Your task to perform on an android device: change notification settings in the gmail app Image 0: 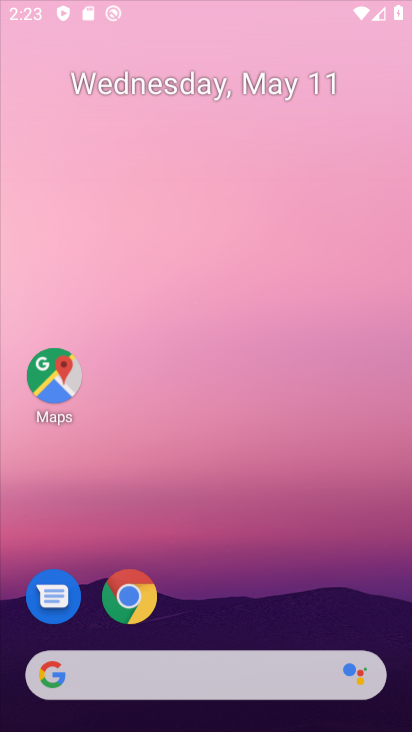
Step 0: press back button
Your task to perform on an android device: change notification settings in the gmail app Image 1: 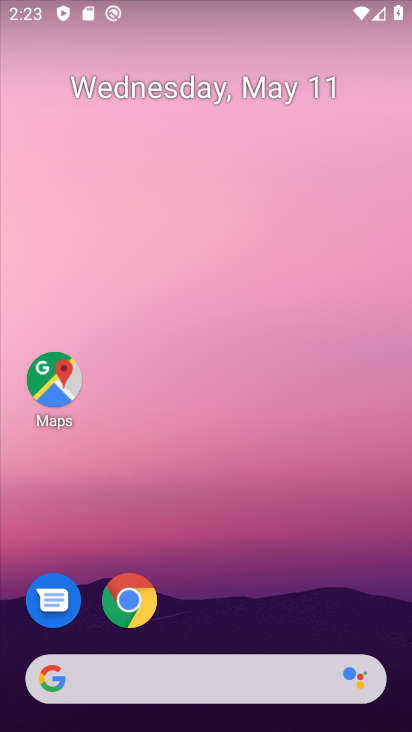
Step 1: drag from (189, 635) to (253, 68)
Your task to perform on an android device: change notification settings in the gmail app Image 2: 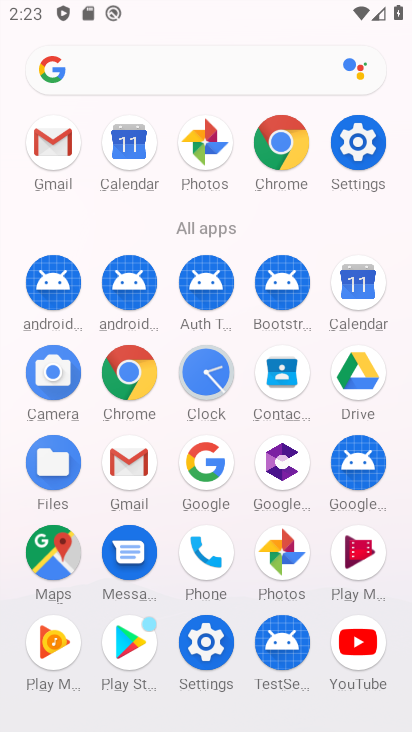
Step 2: click (48, 139)
Your task to perform on an android device: change notification settings in the gmail app Image 3: 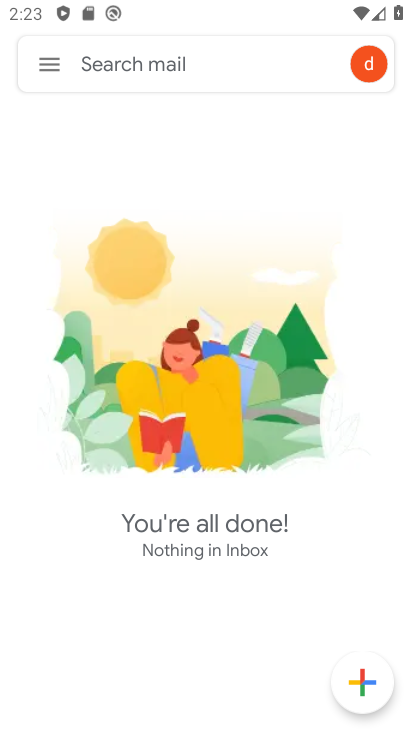
Step 3: click (45, 69)
Your task to perform on an android device: change notification settings in the gmail app Image 4: 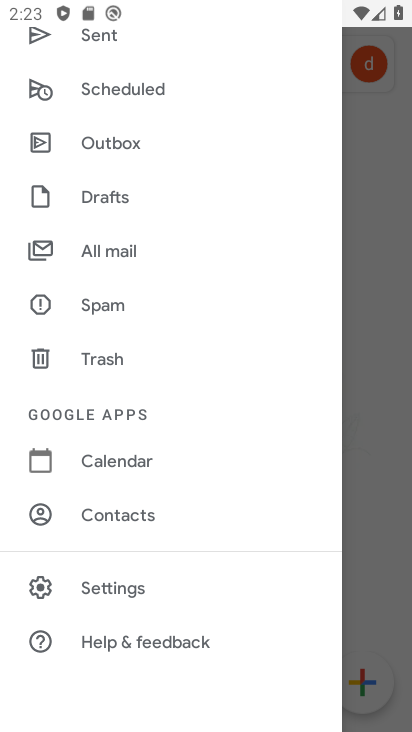
Step 4: click (170, 587)
Your task to perform on an android device: change notification settings in the gmail app Image 5: 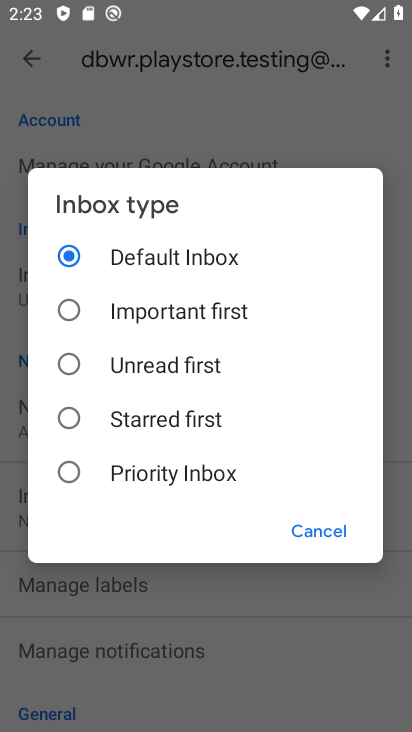
Step 5: click (324, 544)
Your task to perform on an android device: change notification settings in the gmail app Image 6: 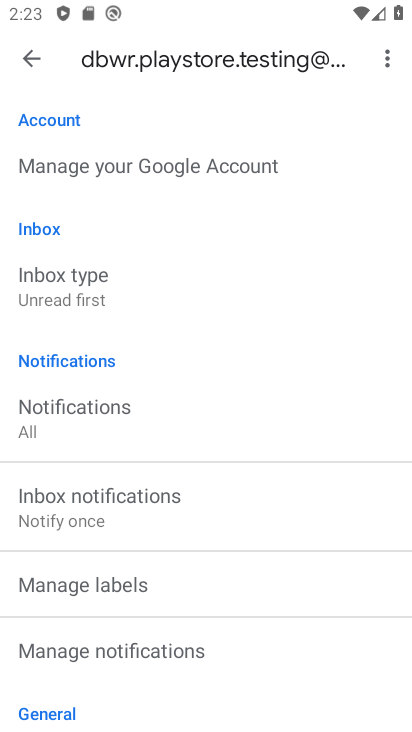
Step 6: click (109, 438)
Your task to perform on an android device: change notification settings in the gmail app Image 7: 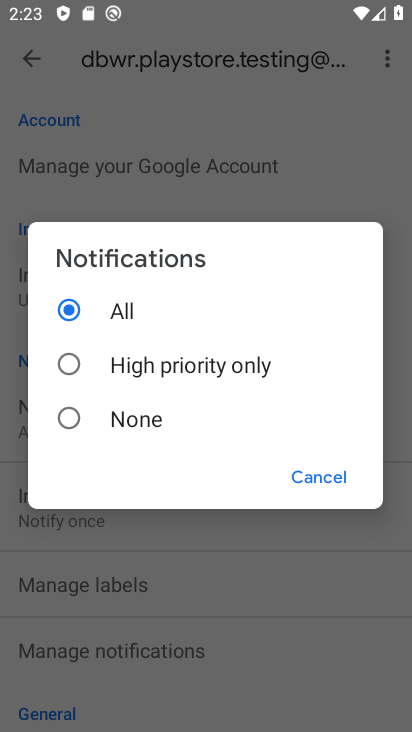
Step 7: click (163, 363)
Your task to perform on an android device: change notification settings in the gmail app Image 8: 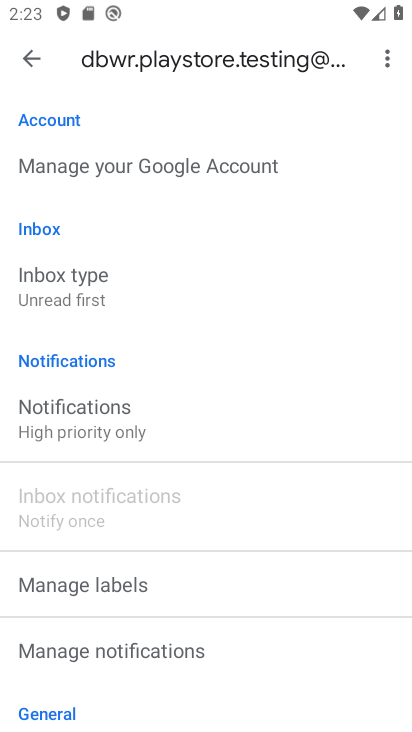
Step 8: task complete